Your task to perform on an android device: Go to Maps Image 0: 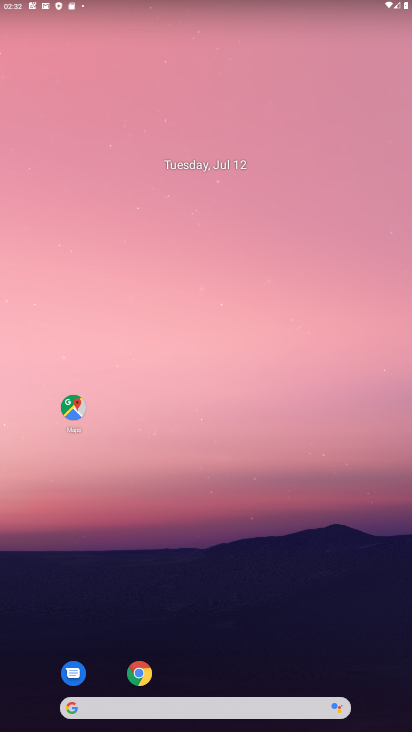
Step 0: press home button
Your task to perform on an android device: Go to Maps Image 1: 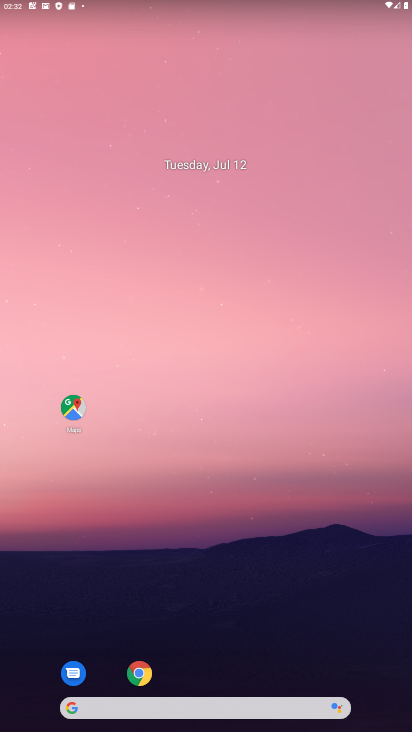
Step 1: drag from (234, 587) to (211, 154)
Your task to perform on an android device: Go to Maps Image 2: 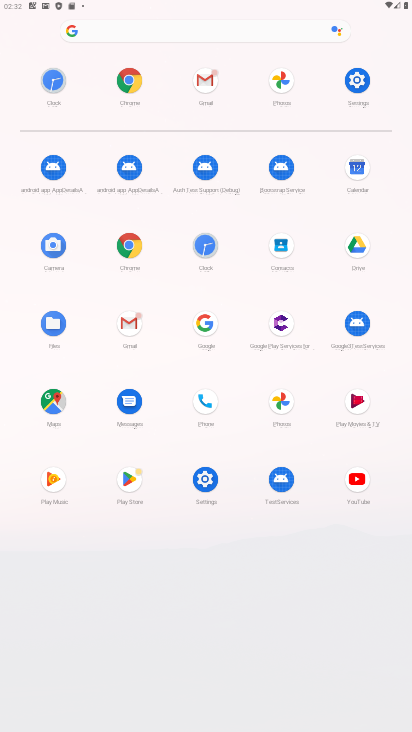
Step 2: click (42, 390)
Your task to perform on an android device: Go to Maps Image 3: 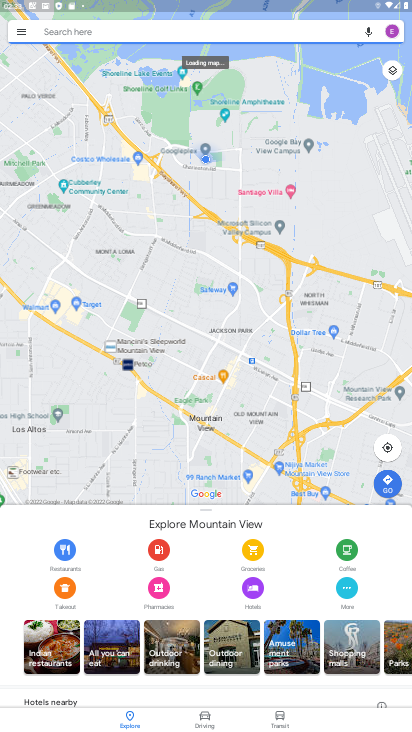
Step 3: task complete